Your task to perform on an android device: open app "LinkedIn" (install if not already installed) Image 0: 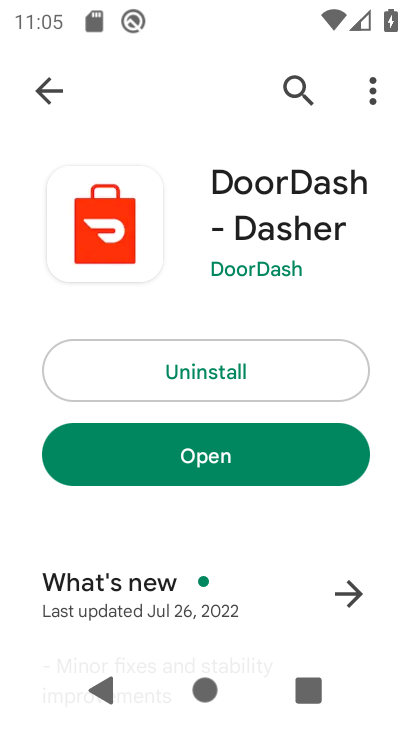
Step 0: press home button
Your task to perform on an android device: open app "LinkedIn" (install if not already installed) Image 1: 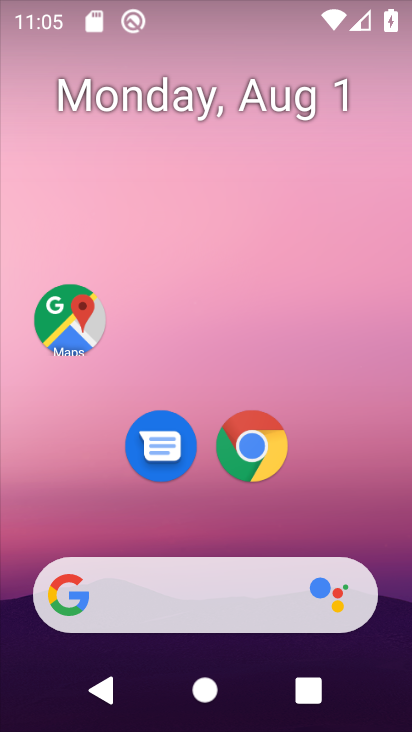
Step 1: drag from (205, 531) to (177, 176)
Your task to perform on an android device: open app "LinkedIn" (install if not already installed) Image 2: 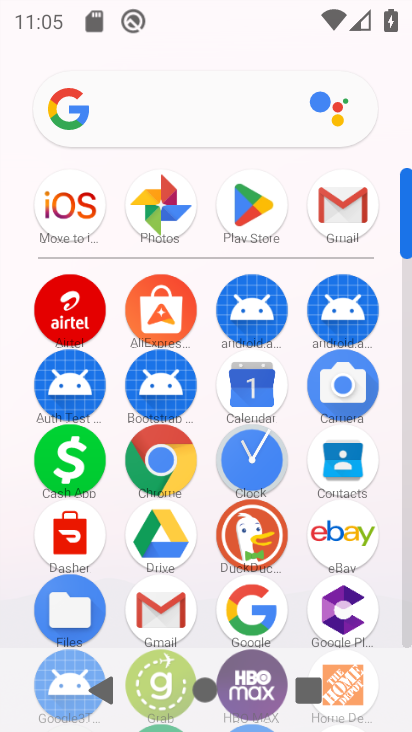
Step 2: click (233, 207)
Your task to perform on an android device: open app "LinkedIn" (install if not already installed) Image 3: 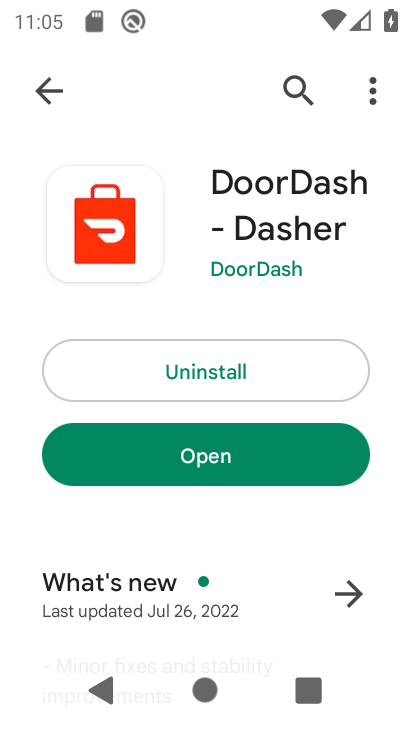
Step 3: click (298, 81)
Your task to perform on an android device: open app "LinkedIn" (install if not already installed) Image 4: 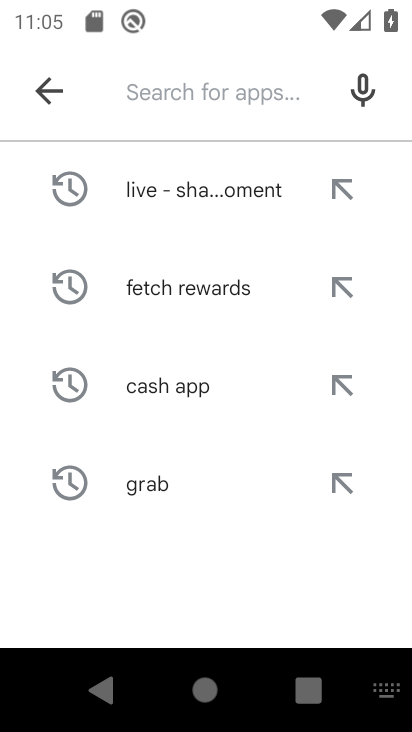
Step 4: type "LinkedIn"
Your task to perform on an android device: open app "LinkedIn" (install if not already installed) Image 5: 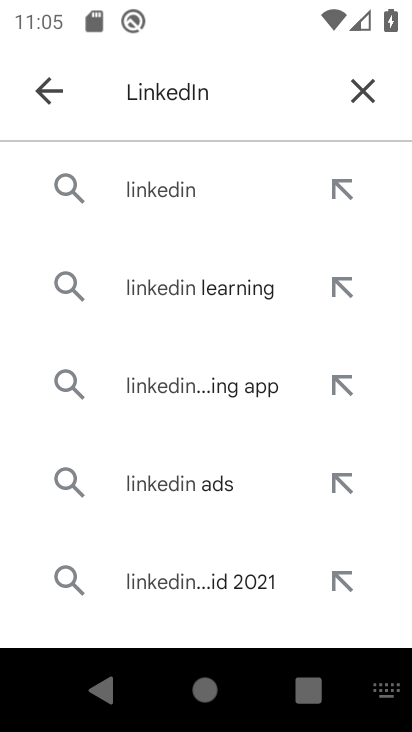
Step 5: click (147, 168)
Your task to perform on an android device: open app "LinkedIn" (install if not already installed) Image 6: 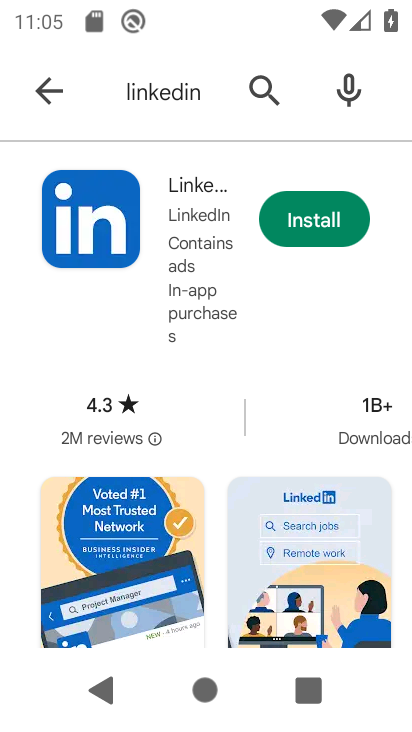
Step 6: click (335, 220)
Your task to perform on an android device: open app "LinkedIn" (install if not already installed) Image 7: 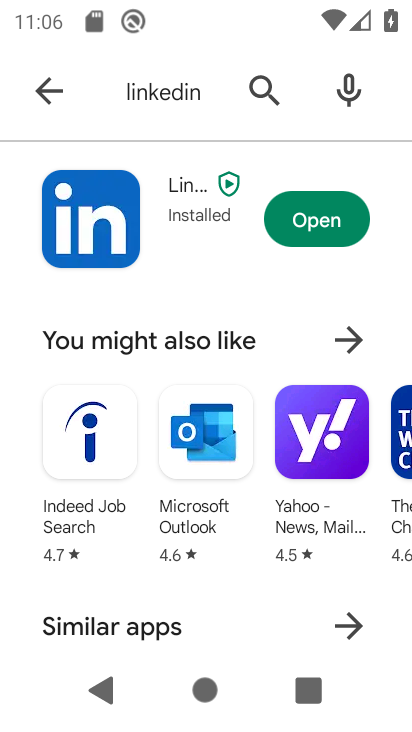
Step 7: click (335, 224)
Your task to perform on an android device: open app "LinkedIn" (install if not already installed) Image 8: 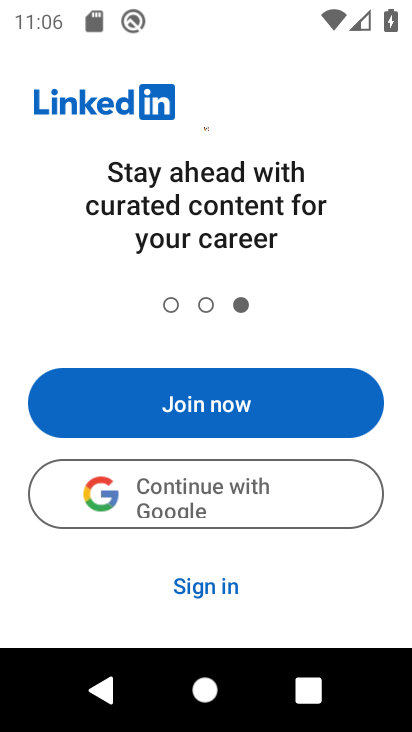
Step 8: task complete